Your task to perform on an android device: Go to sound settings Image 0: 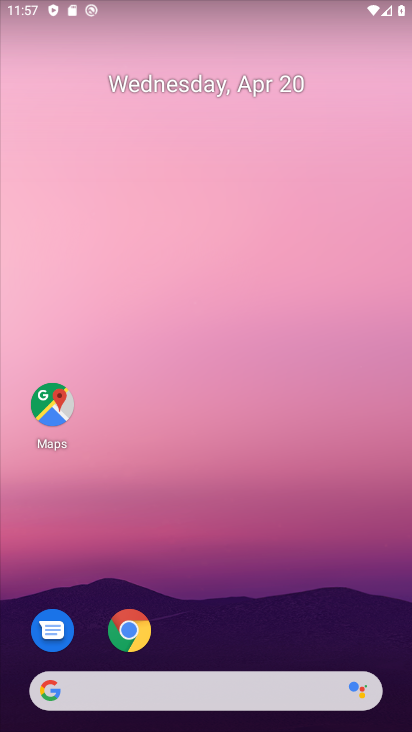
Step 0: drag from (271, 572) to (352, 87)
Your task to perform on an android device: Go to sound settings Image 1: 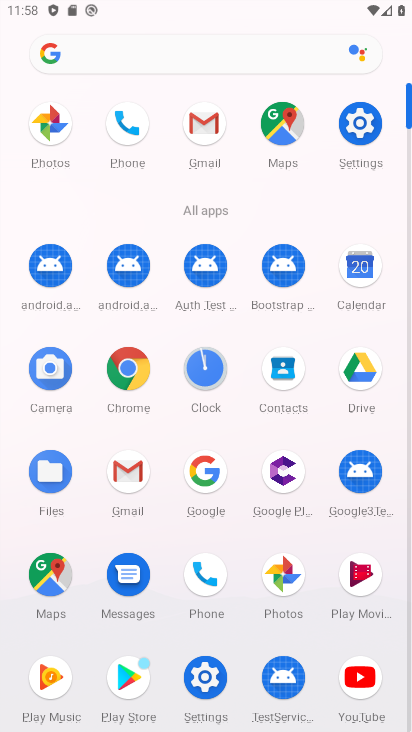
Step 1: click (339, 134)
Your task to perform on an android device: Go to sound settings Image 2: 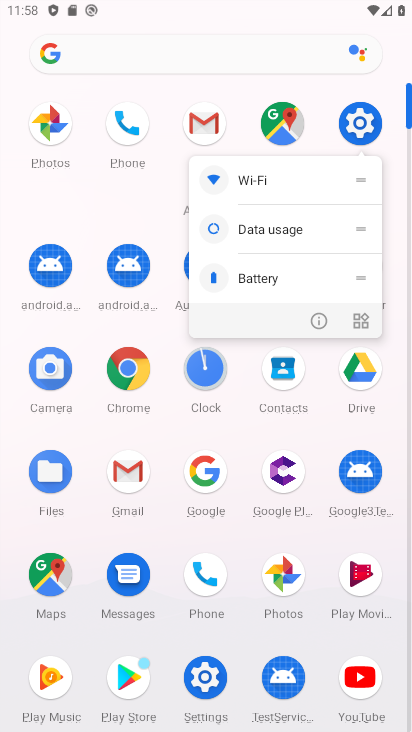
Step 2: click (345, 128)
Your task to perform on an android device: Go to sound settings Image 3: 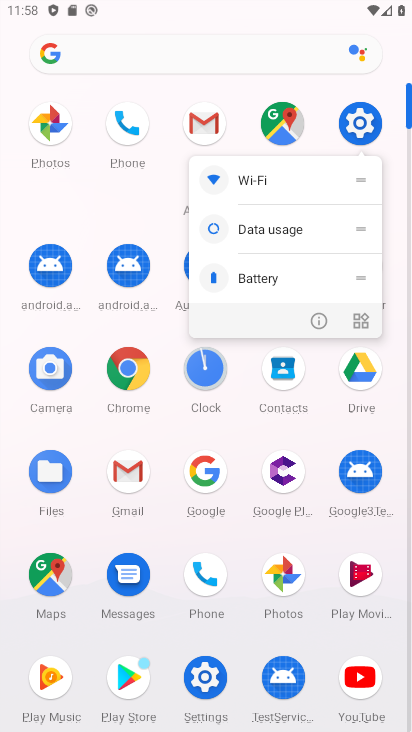
Step 3: click (363, 120)
Your task to perform on an android device: Go to sound settings Image 4: 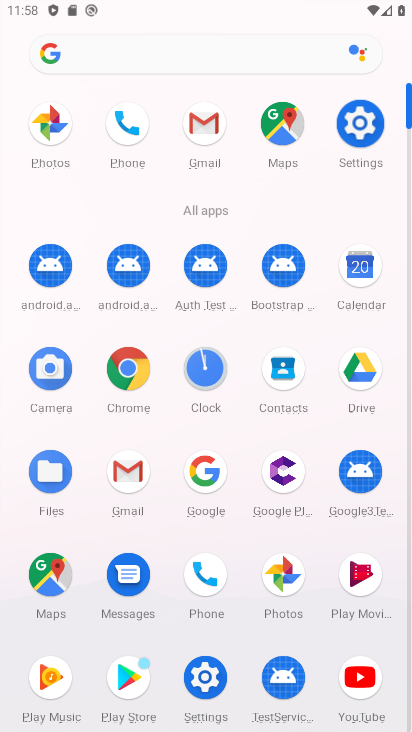
Step 4: click (358, 116)
Your task to perform on an android device: Go to sound settings Image 5: 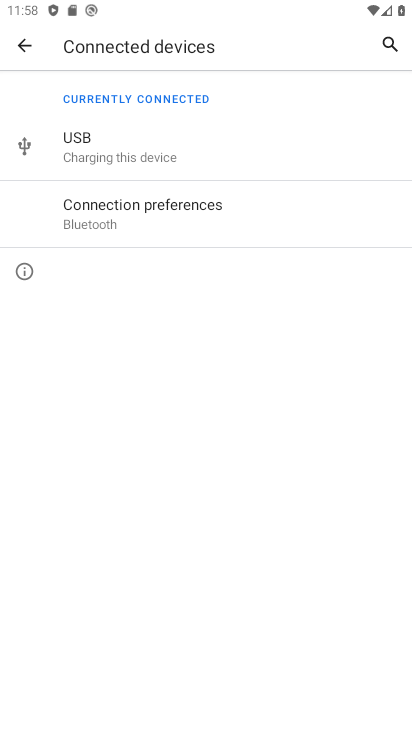
Step 5: press back button
Your task to perform on an android device: Go to sound settings Image 6: 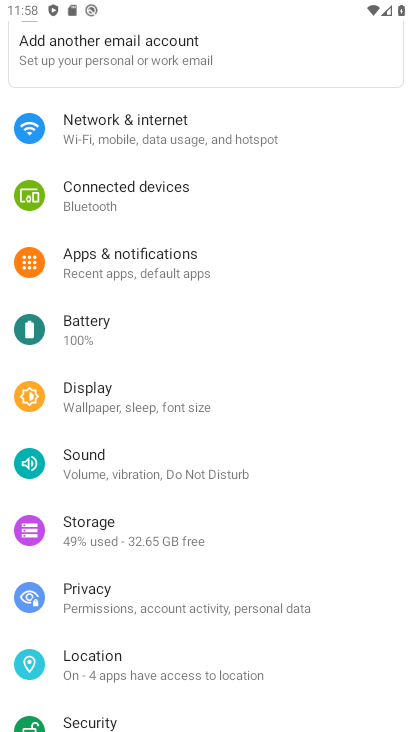
Step 6: click (125, 467)
Your task to perform on an android device: Go to sound settings Image 7: 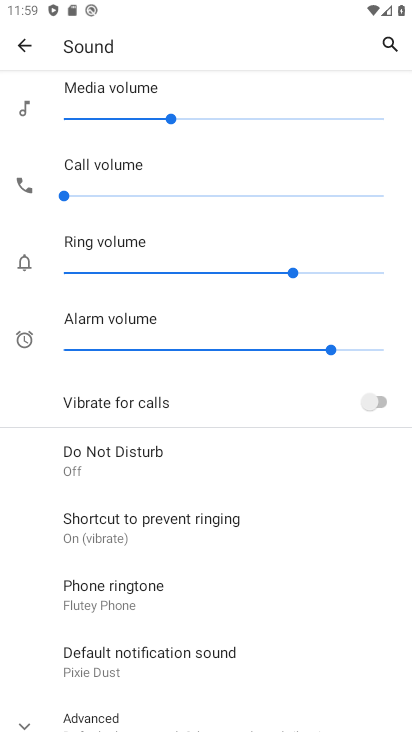
Step 7: task complete